Your task to perform on an android device: Add "rayovac triple a" to the cart on walmart, then select checkout. Image 0: 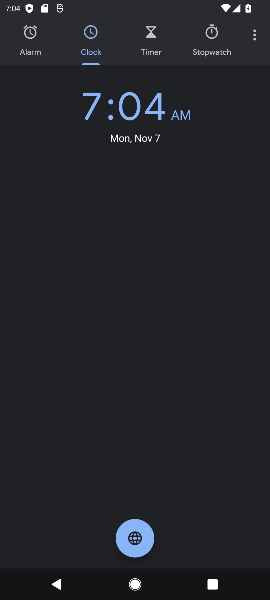
Step 0: press home button
Your task to perform on an android device: Add "rayovac triple a" to the cart on walmart, then select checkout. Image 1: 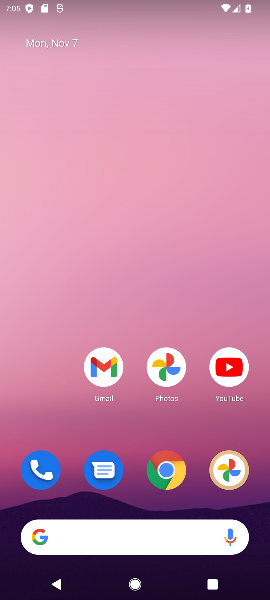
Step 1: click (167, 465)
Your task to perform on an android device: Add "rayovac triple a" to the cart on walmart, then select checkout. Image 2: 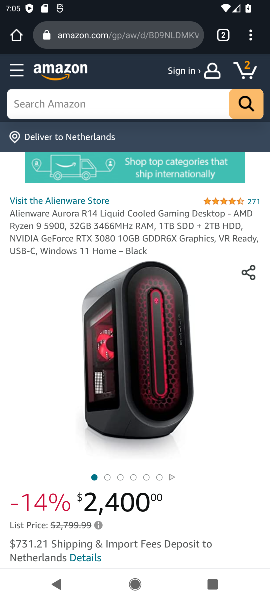
Step 2: click (63, 29)
Your task to perform on an android device: Add "rayovac triple a" to the cart on walmart, then select checkout. Image 3: 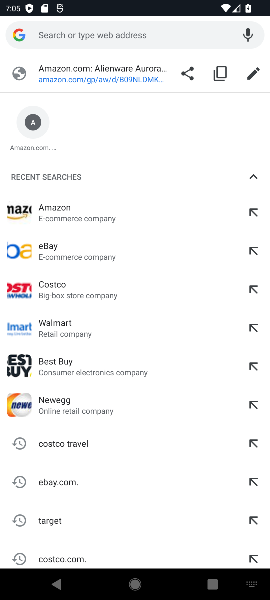
Step 3: click (48, 332)
Your task to perform on an android device: Add "rayovac triple a" to the cart on walmart, then select checkout. Image 4: 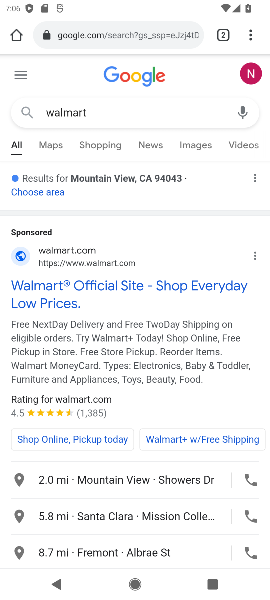
Step 4: click (48, 291)
Your task to perform on an android device: Add "rayovac triple a" to the cart on walmart, then select checkout. Image 5: 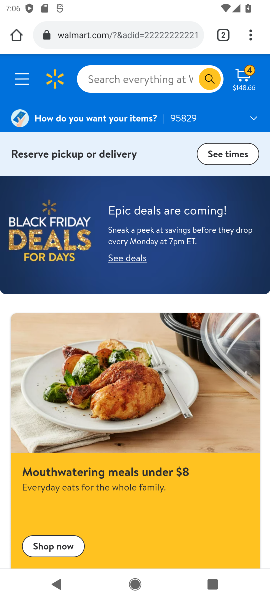
Step 5: click (137, 85)
Your task to perform on an android device: Add "rayovac triple a" to the cart on walmart, then select checkout. Image 6: 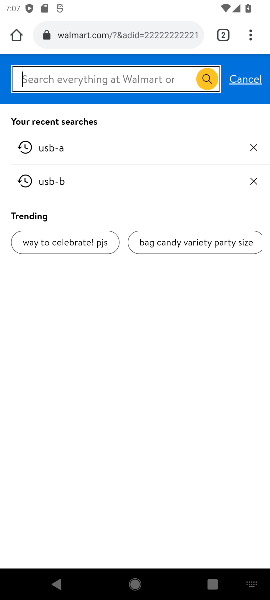
Step 6: type "rayovac triple a"
Your task to perform on an android device: Add "rayovac triple a" to the cart on walmart, then select checkout. Image 7: 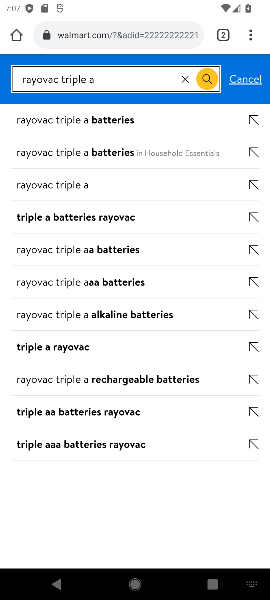
Step 7: click (206, 75)
Your task to perform on an android device: Add "rayovac triple a" to the cart on walmart, then select checkout. Image 8: 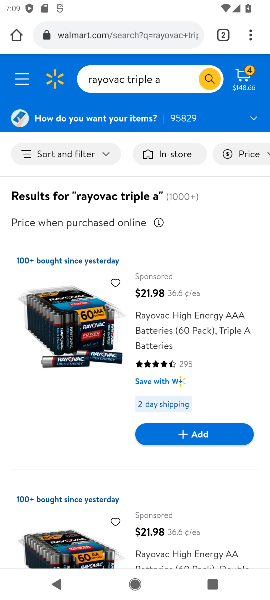
Step 8: click (188, 428)
Your task to perform on an android device: Add "rayovac triple a" to the cart on walmart, then select checkout. Image 9: 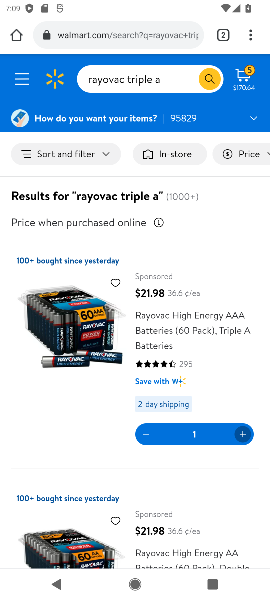
Step 9: click (249, 68)
Your task to perform on an android device: Add "rayovac triple a" to the cart on walmart, then select checkout. Image 10: 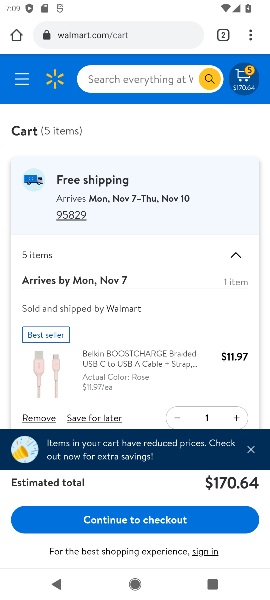
Step 10: click (105, 524)
Your task to perform on an android device: Add "rayovac triple a" to the cart on walmart, then select checkout. Image 11: 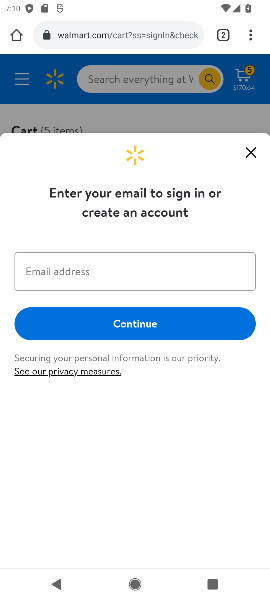
Step 11: task complete